Your task to perform on an android device: open a new tab in the chrome app Image 0: 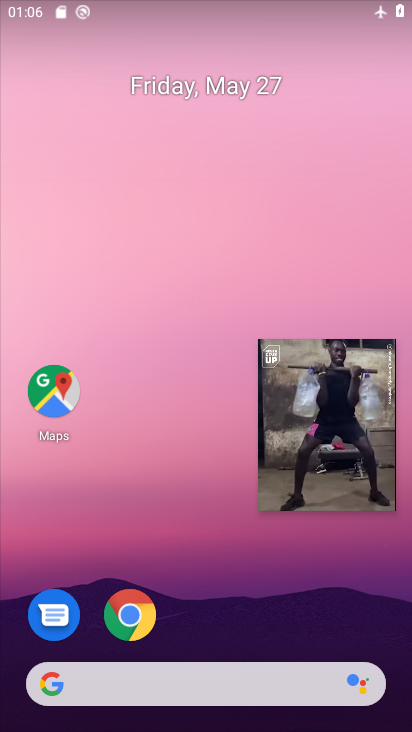
Step 0: drag from (233, 596) to (246, 92)
Your task to perform on an android device: open a new tab in the chrome app Image 1: 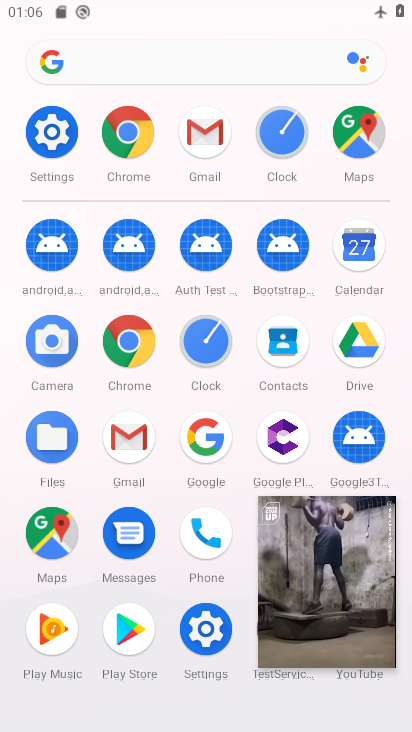
Step 1: click (136, 349)
Your task to perform on an android device: open a new tab in the chrome app Image 2: 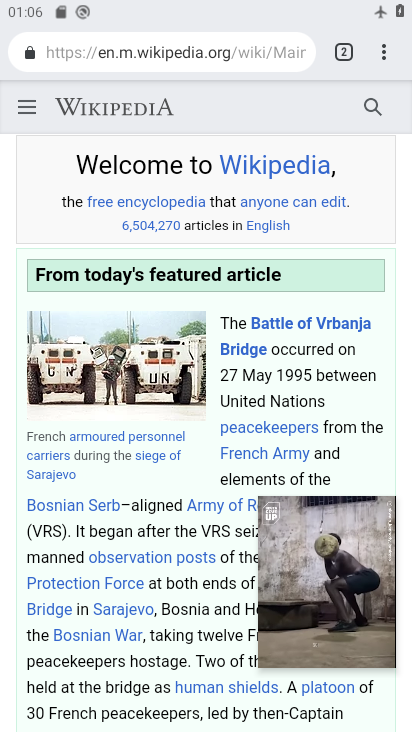
Step 2: click (384, 60)
Your task to perform on an android device: open a new tab in the chrome app Image 3: 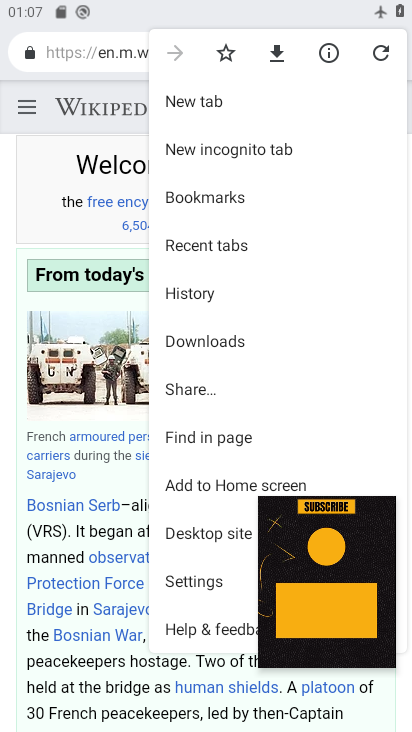
Step 3: click (253, 102)
Your task to perform on an android device: open a new tab in the chrome app Image 4: 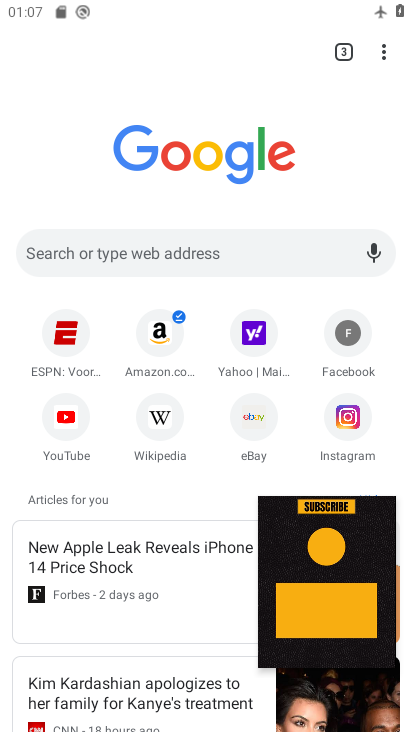
Step 4: task complete